Your task to perform on an android device: Go to privacy settings Image 0: 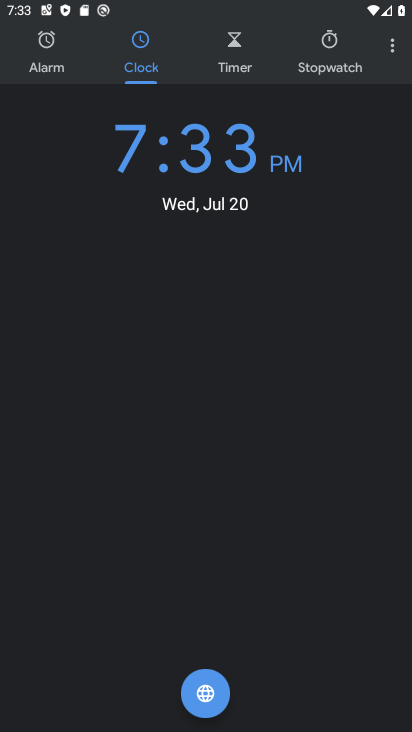
Step 0: press home button
Your task to perform on an android device: Go to privacy settings Image 1: 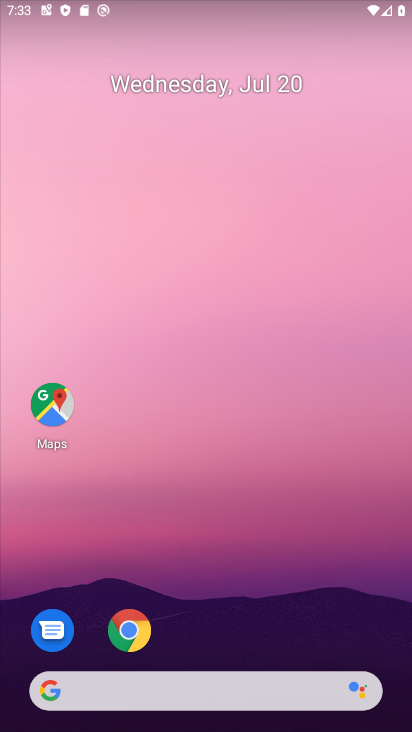
Step 1: drag from (182, 687) to (230, 146)
Your task to perform on an android device: Go to privacy settings Image 2: 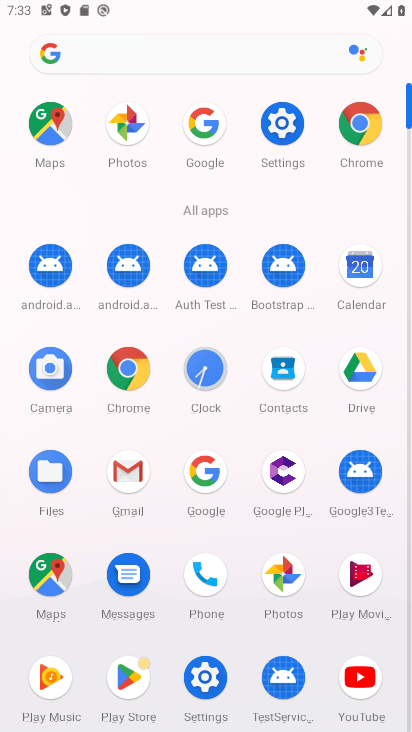
Step 2: click (281, 119)
Your task to perform on an android device: Go to privacy settings Image 3: 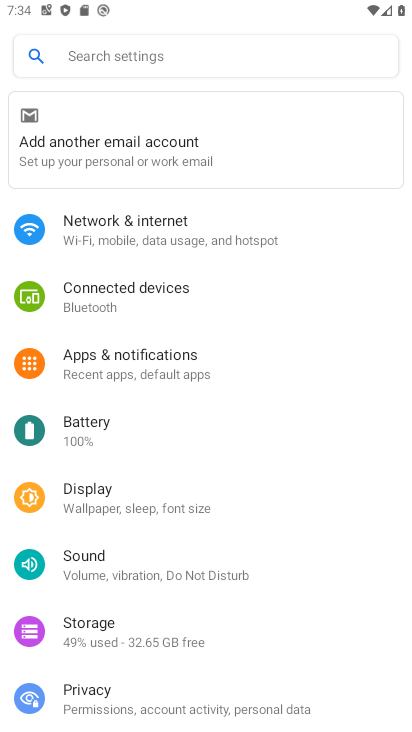
Step 3: click (87, 690)
Your task to perform on an android device: Go to privacy settings Image 4: 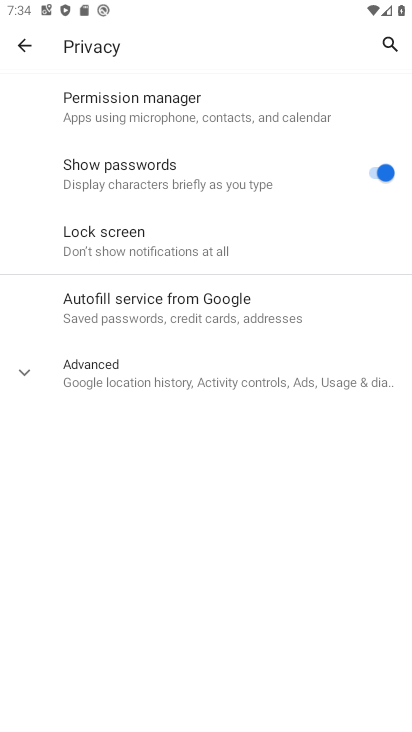
Step 4: task complete